Your task to perform on an android device: Open Reddit.com Image 0: 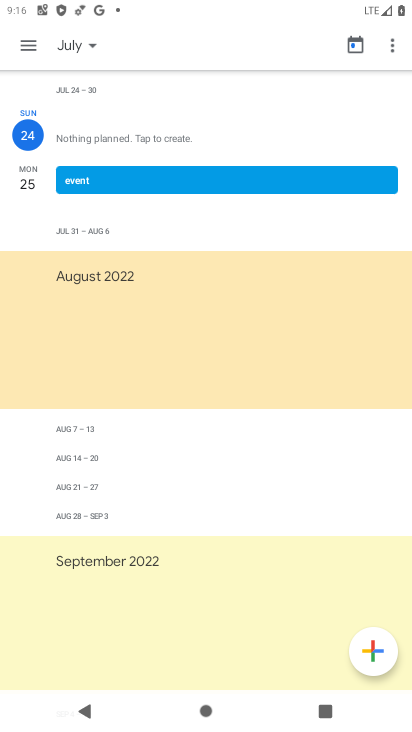
Step 0: press home button
Your task to perform on an android device: Open Reddit.com Image 1: 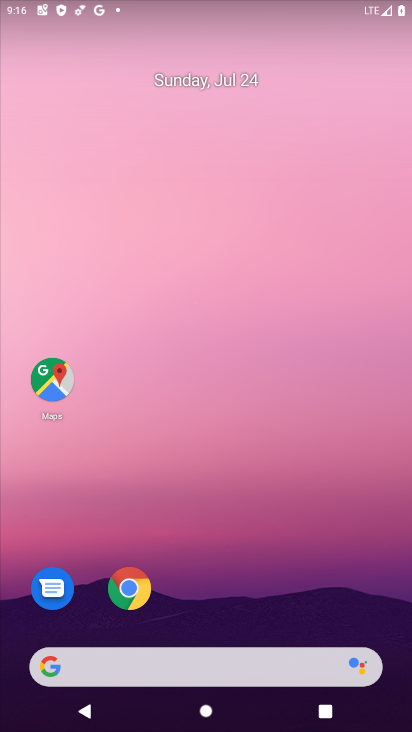
Step 1: drag from (199, 670) to (229, 436)
Your task to perform on an android device: Open Reddit.com Image 2: 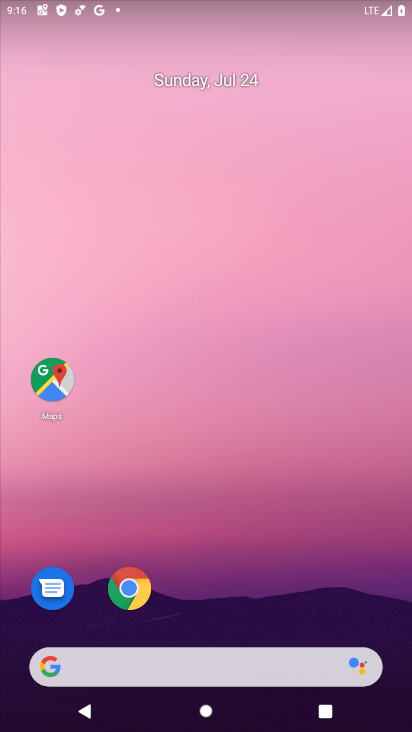
Step 2: click (142, 564)
Your task to perform on an android device: Open Reddit.com Image 3: 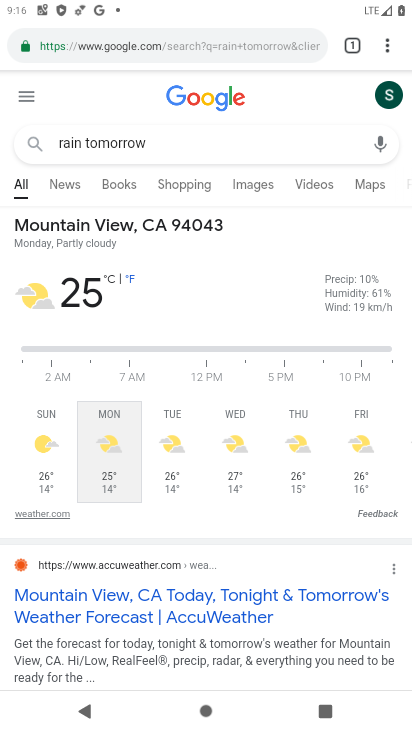
Step 3: click (177, 58)
Your task to perform on an android device: Open Reddit.com Image 4: 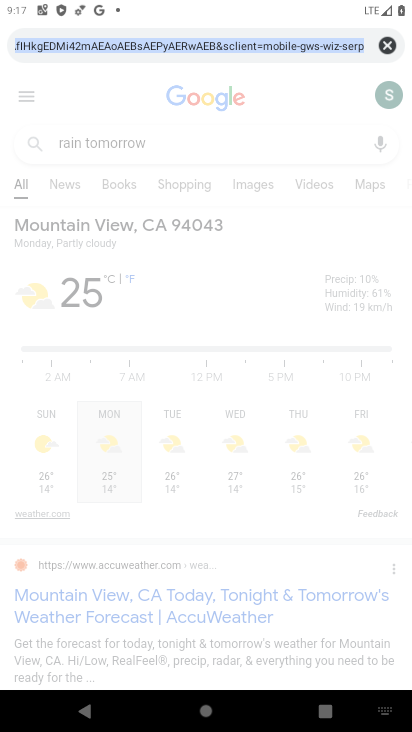
Step 4: type "reddot.com"
Your task to perform on an android device: Open Reddit.com Image 5: 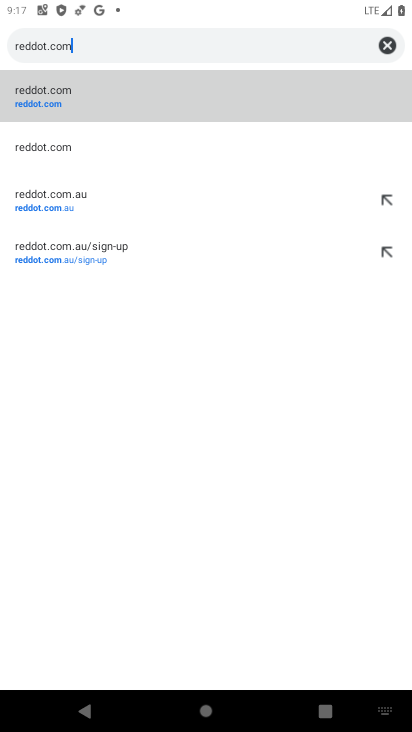
Step 5: click (74, 91)
Your task to perform on an android device: Open Reddit.com Image 6: 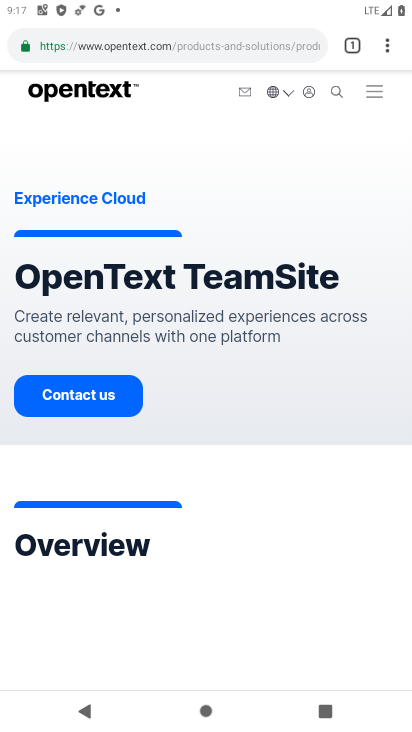
Step 6: task complete